Your task to perform on an android device: add a label to a message in the gmail app Image 0: 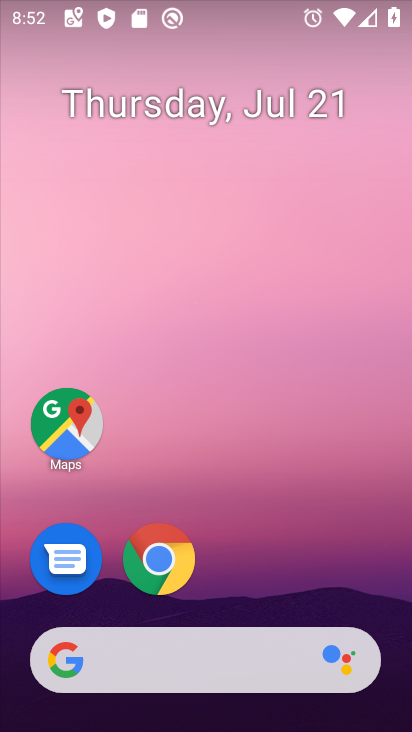
Step 0: drag from (324, 556) to (352, 130)
Your task to perform on an android device: add a label to a message in the gmail app Image 1: 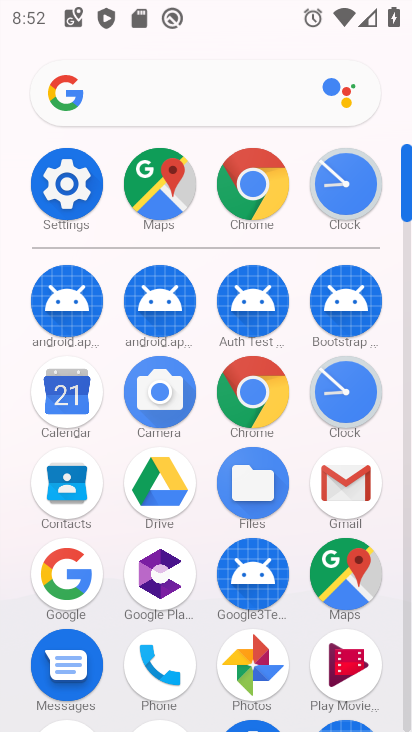
Step 1: click (343, 476)
Your task to perform on an android device: add a label to a message in the gmail app Image 2: 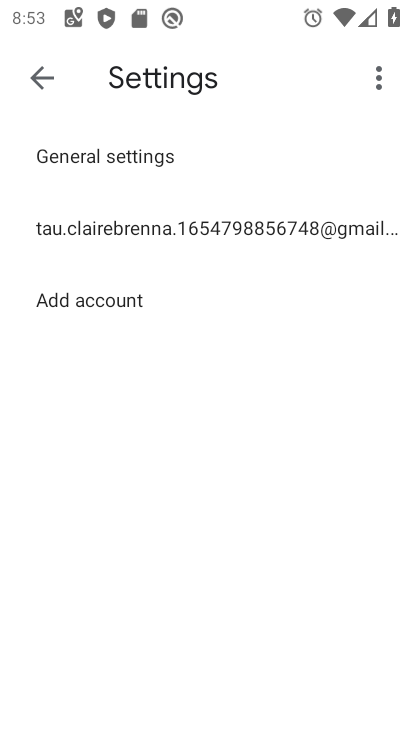
Step 2: task complete